Your task to perform on an android device: Show me recent news Image 0: 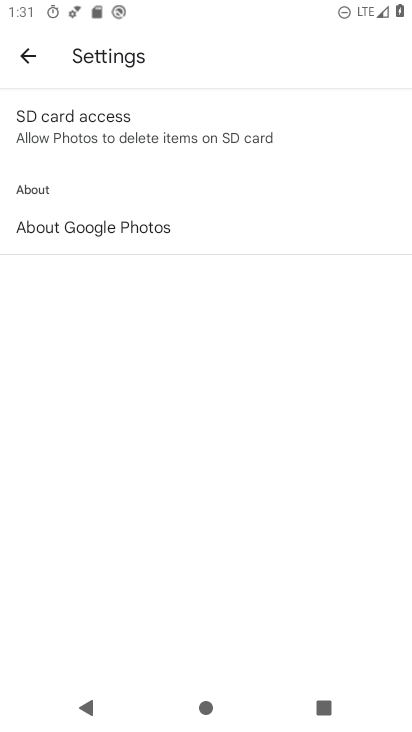
Step 0: press home button
Your task to perform on an android device: Show me recent news Image 1: 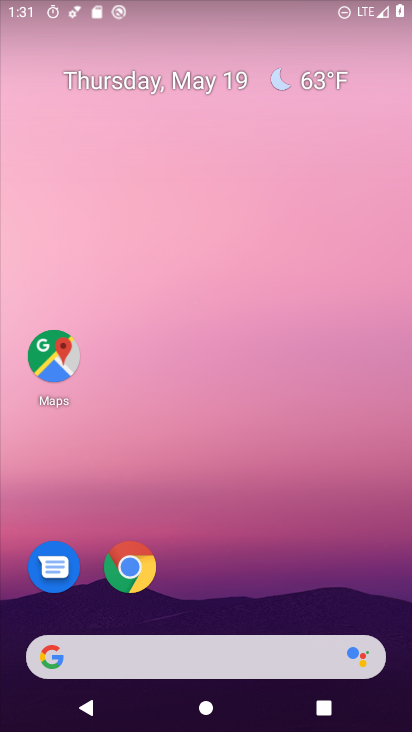
Step 1: click (58, 663)
Your task to perform on an android device: Show me recent news Image 2: 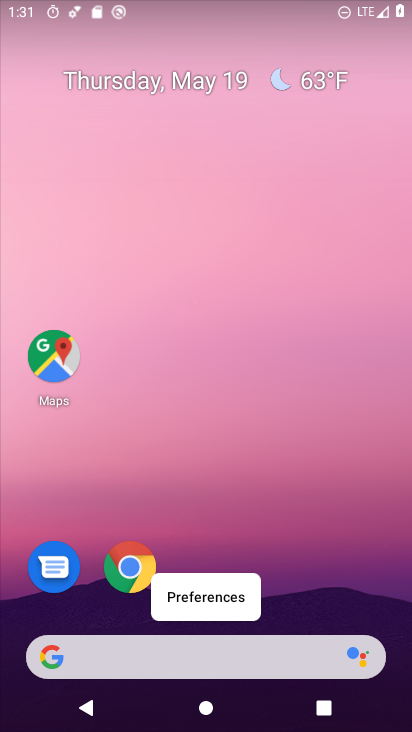
Step 2: click (62, 658)
Your task to perform on an android device: Show me recent news Image 3: 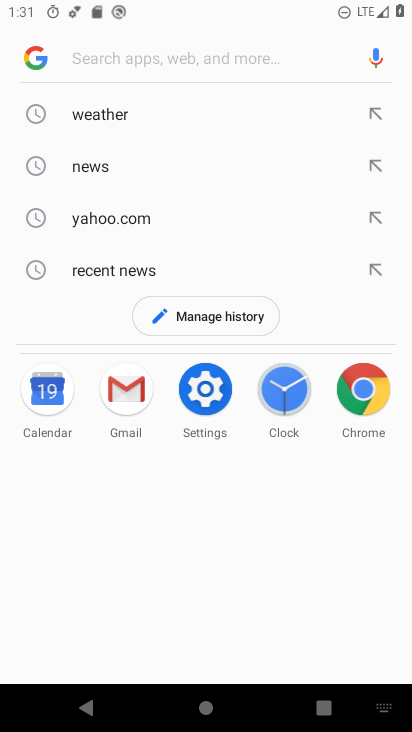
Step 3: click (98, 170)
Your task to perform on an android device: Show me recent news Image 4: 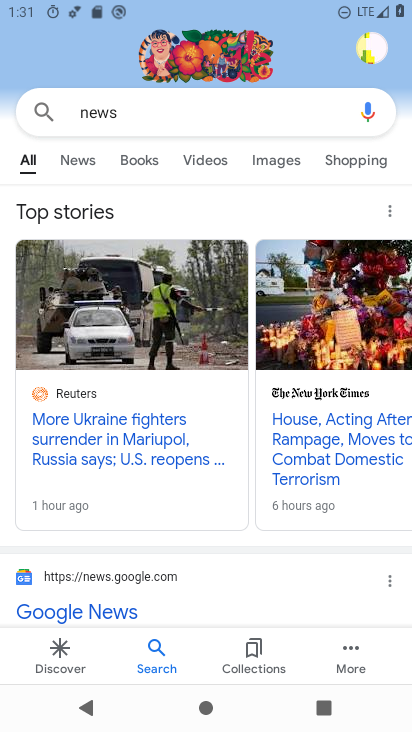
Step 4: click (78, 160)
Your task to perform on an android device: Show me recent news Image 5: 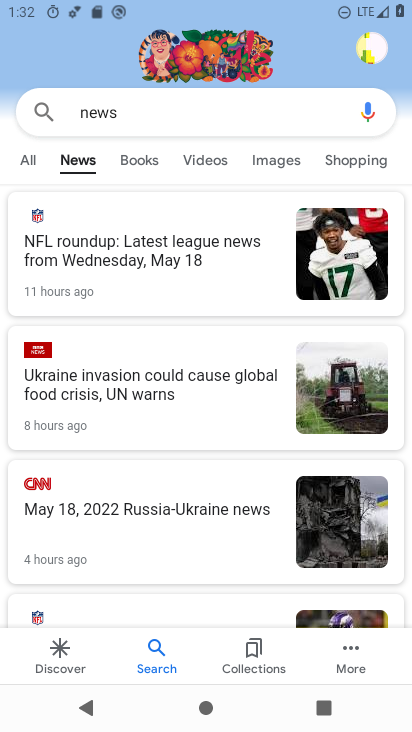
Step 5: task complete